Your task to perform on an android device: toggle airplane mode Image 0: 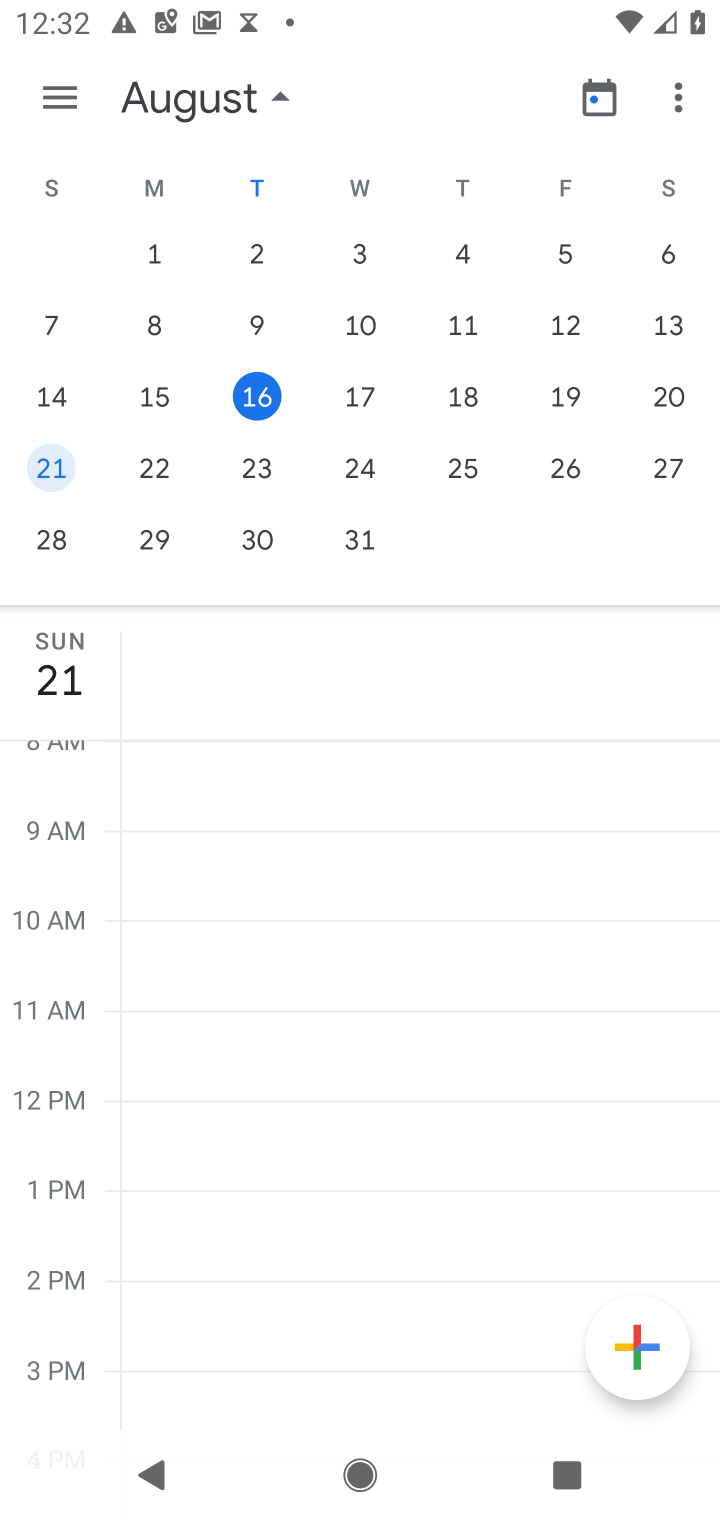
Step 0: press home button
Your task to perform on an android device: toggle airplane mode Image 1: 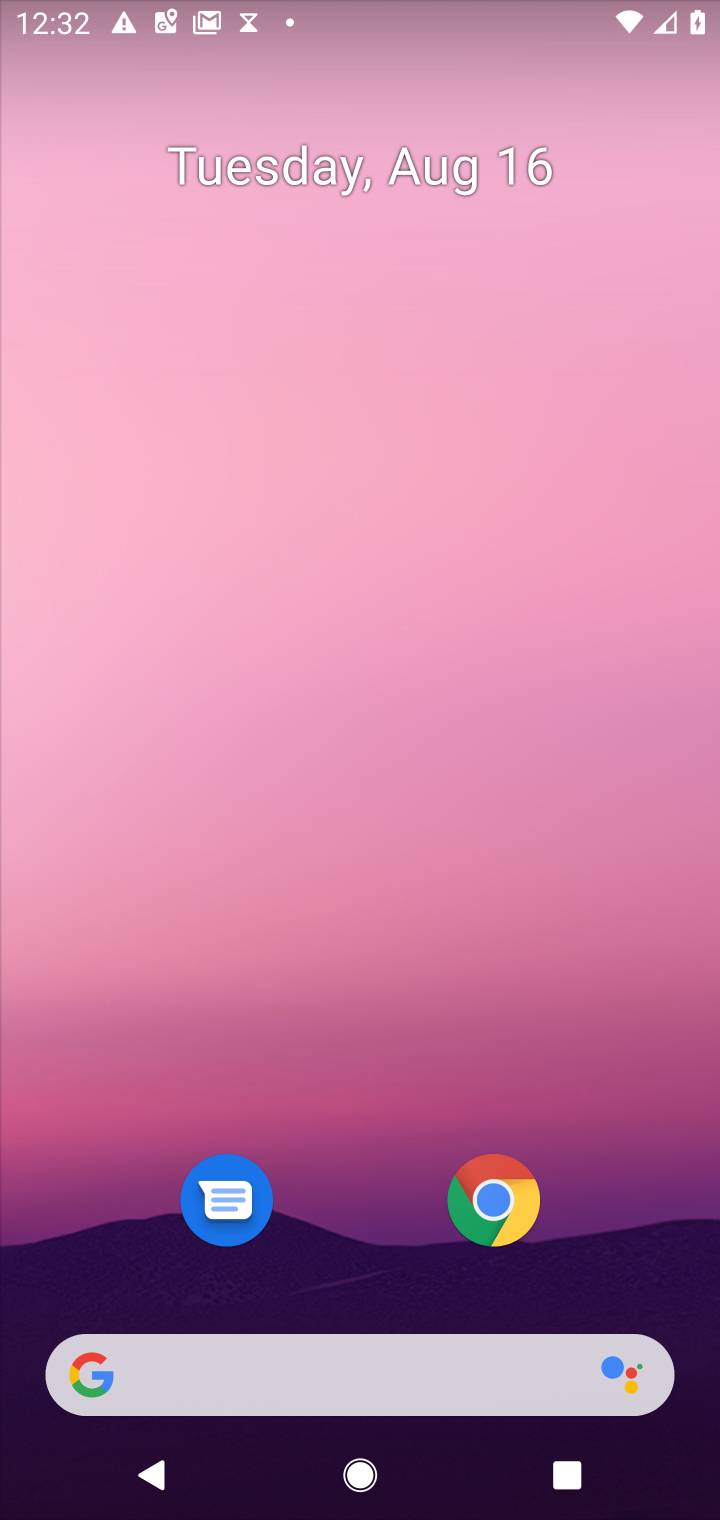
Step 1: drag from (368, 1216) to (345, 159)
Your task to perform on an android device: toggle airplane mode Image 2: 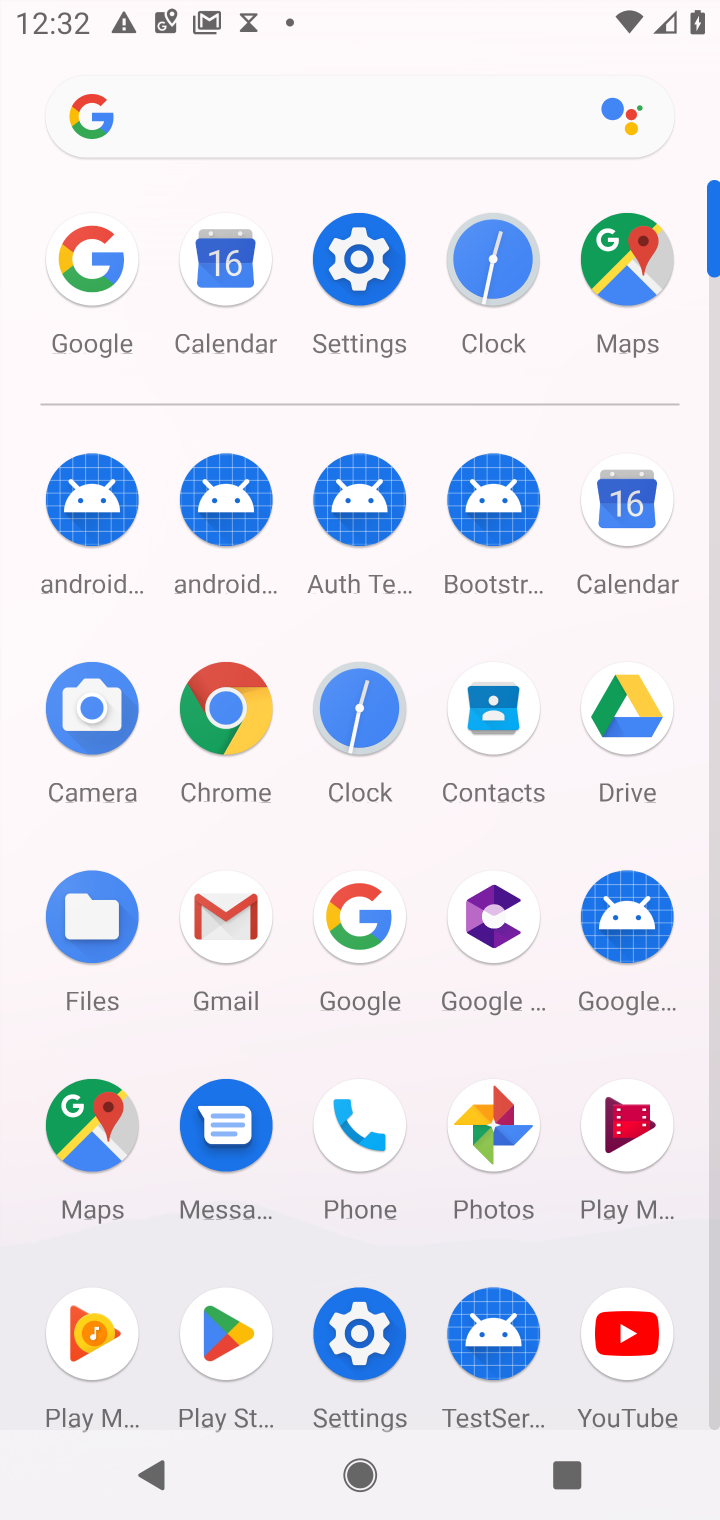
Step 2: click (327, 283)
Your task to perform on an android device: toggle airplane mode Image 3: 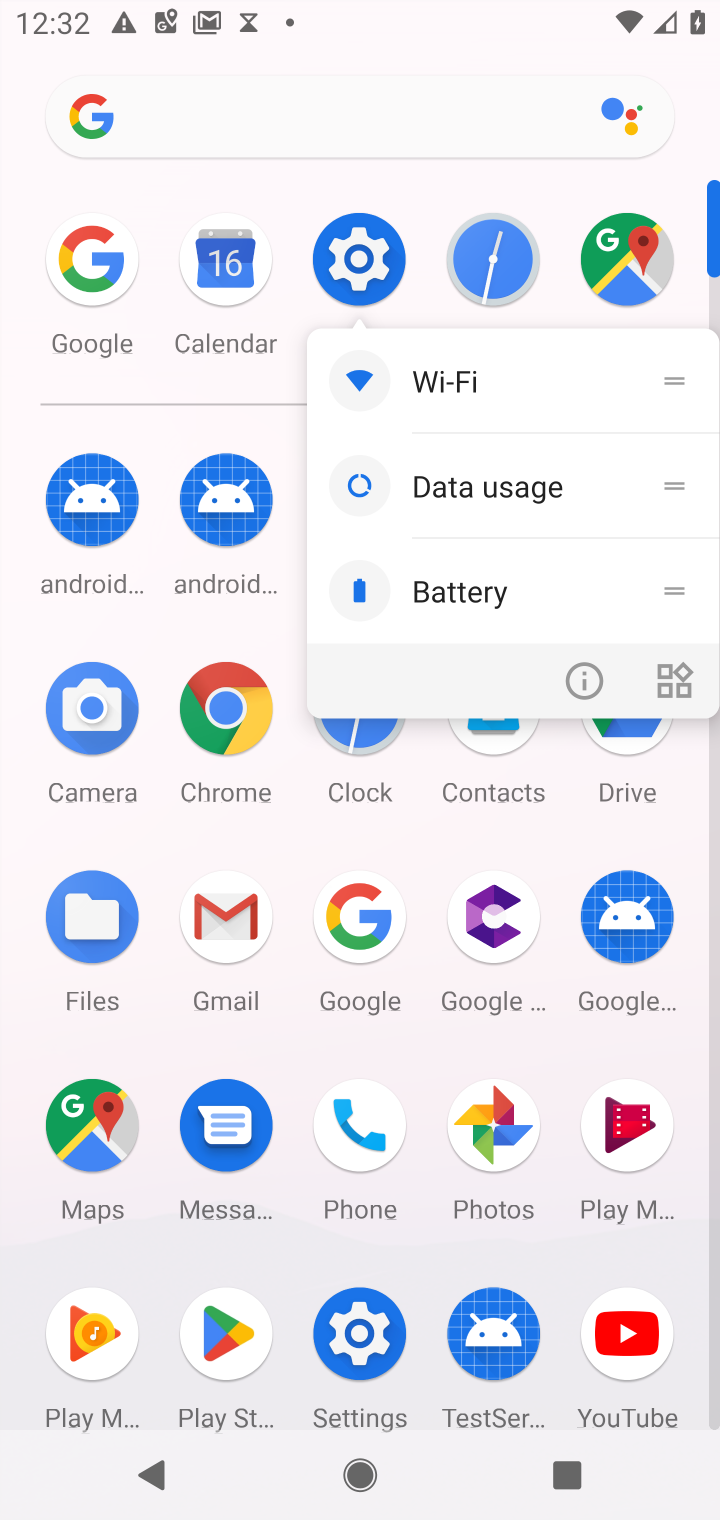
Step 3: click (329, 272)
Your task to perform on an android device: toggle airplane mode Image 4: 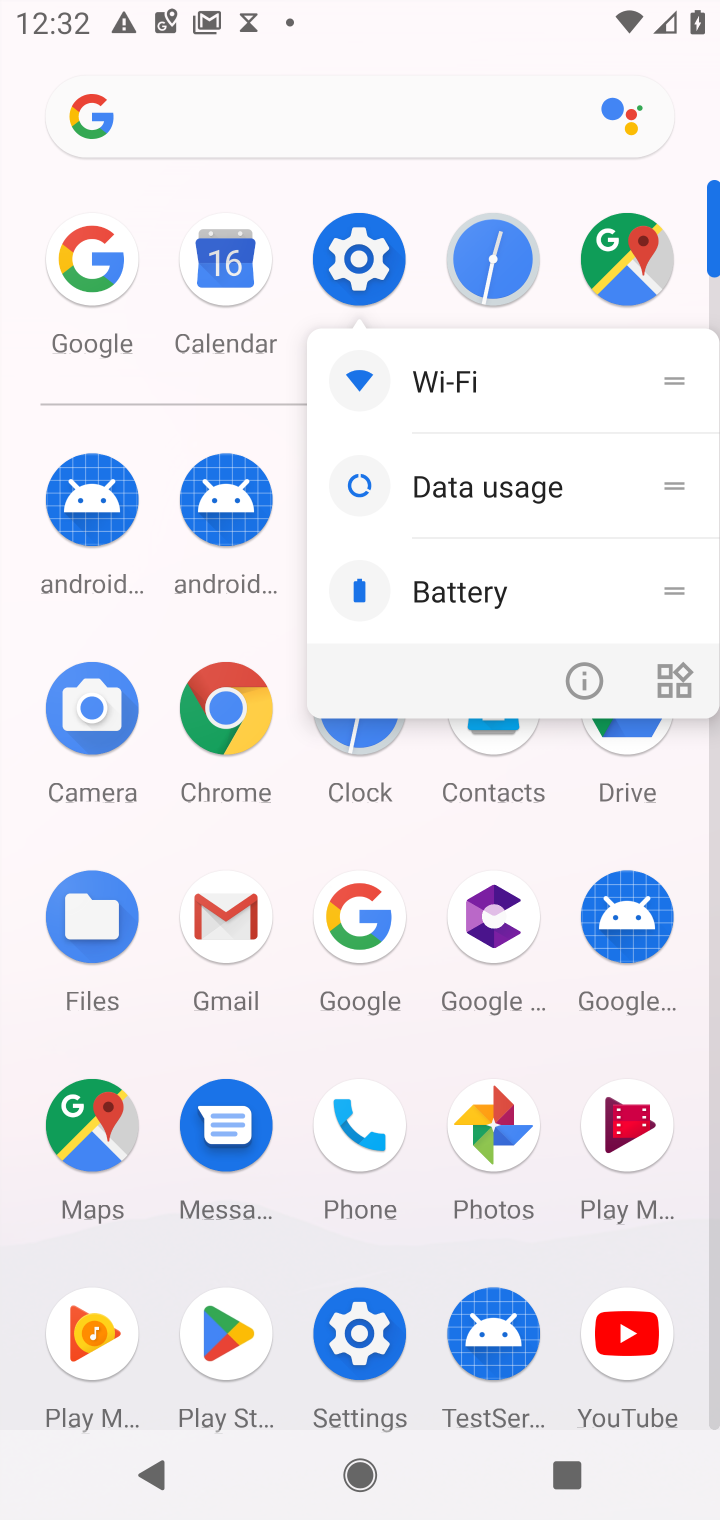
Step 4: click (341, 283)
Your task to perform on an android device: toggle airplane mode Image 5: 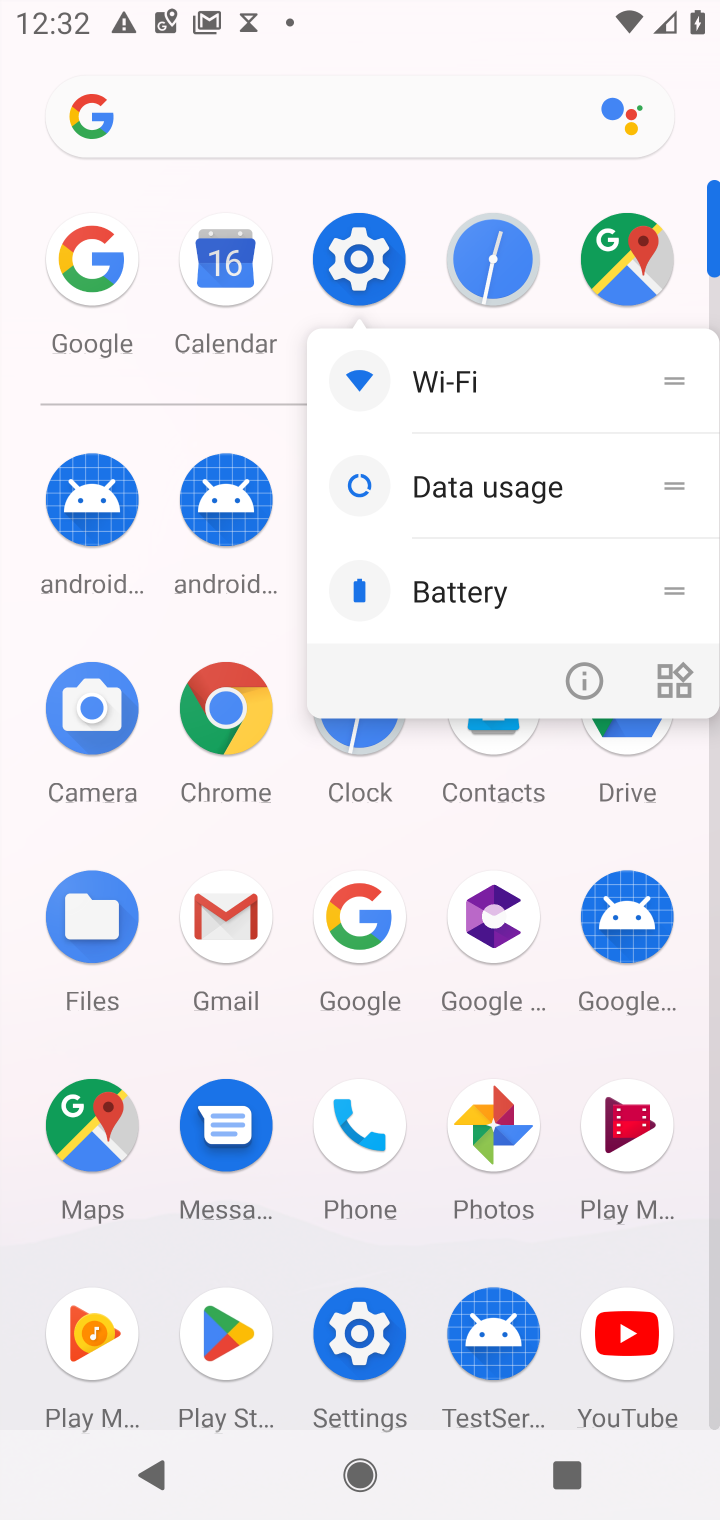
Step 5: click (344, 259)
Your task to perform on an android device: toggle airplane mode Image 6: 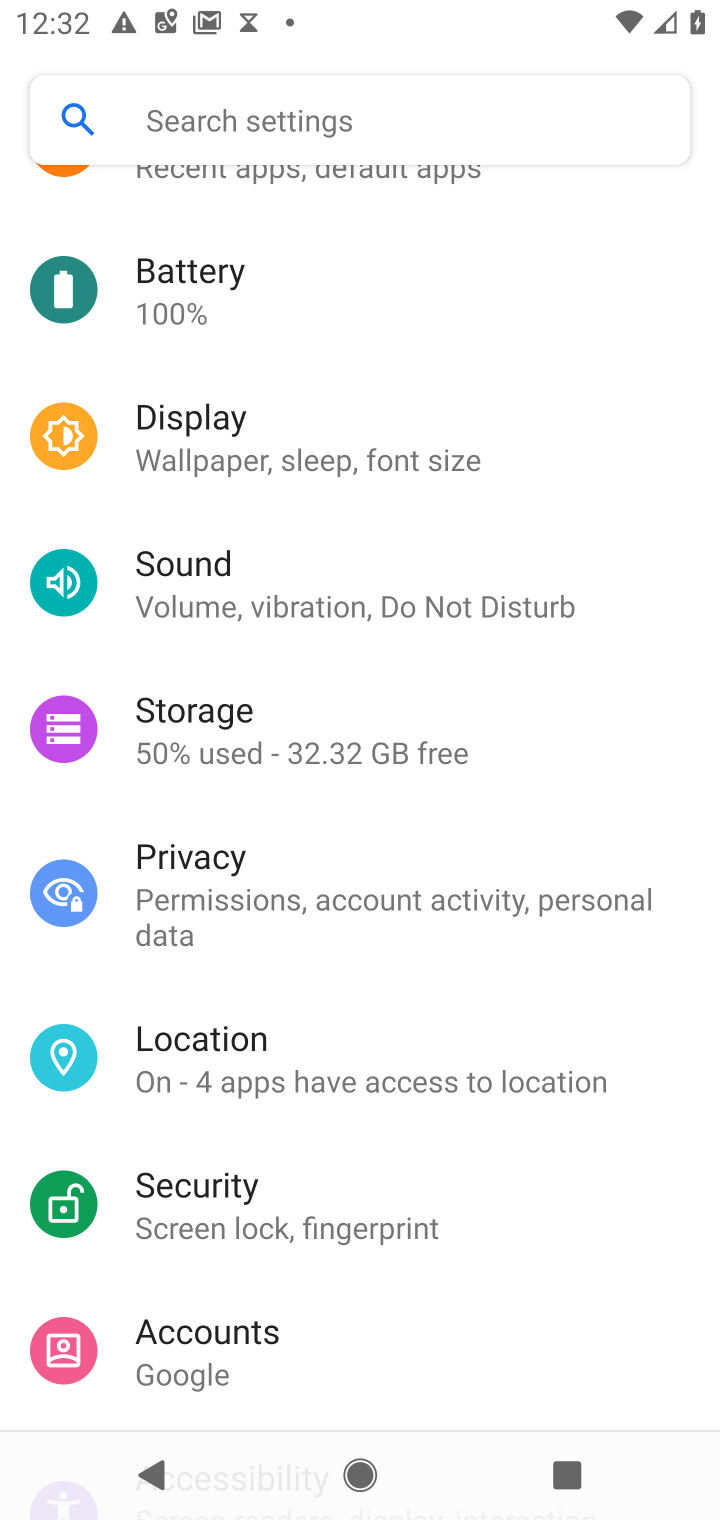
Step 6: drag from (326, 602) to (412, 1190)
Your task to perform on an android device: toggle airplane mode Image 7: 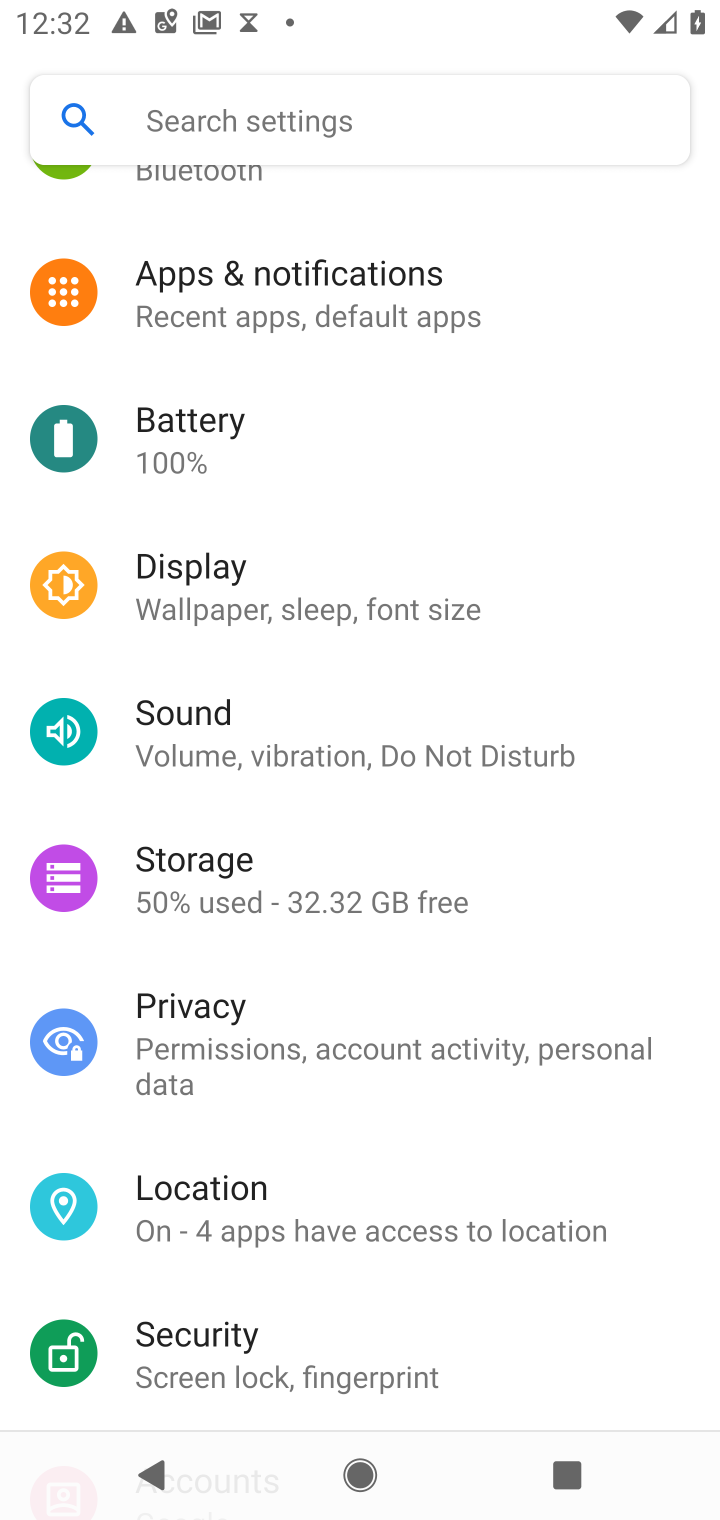
Step 7: drag from (264, 379) to (359, 1154)
Your task to perform on an android device: toggle airplane mode Image 8: 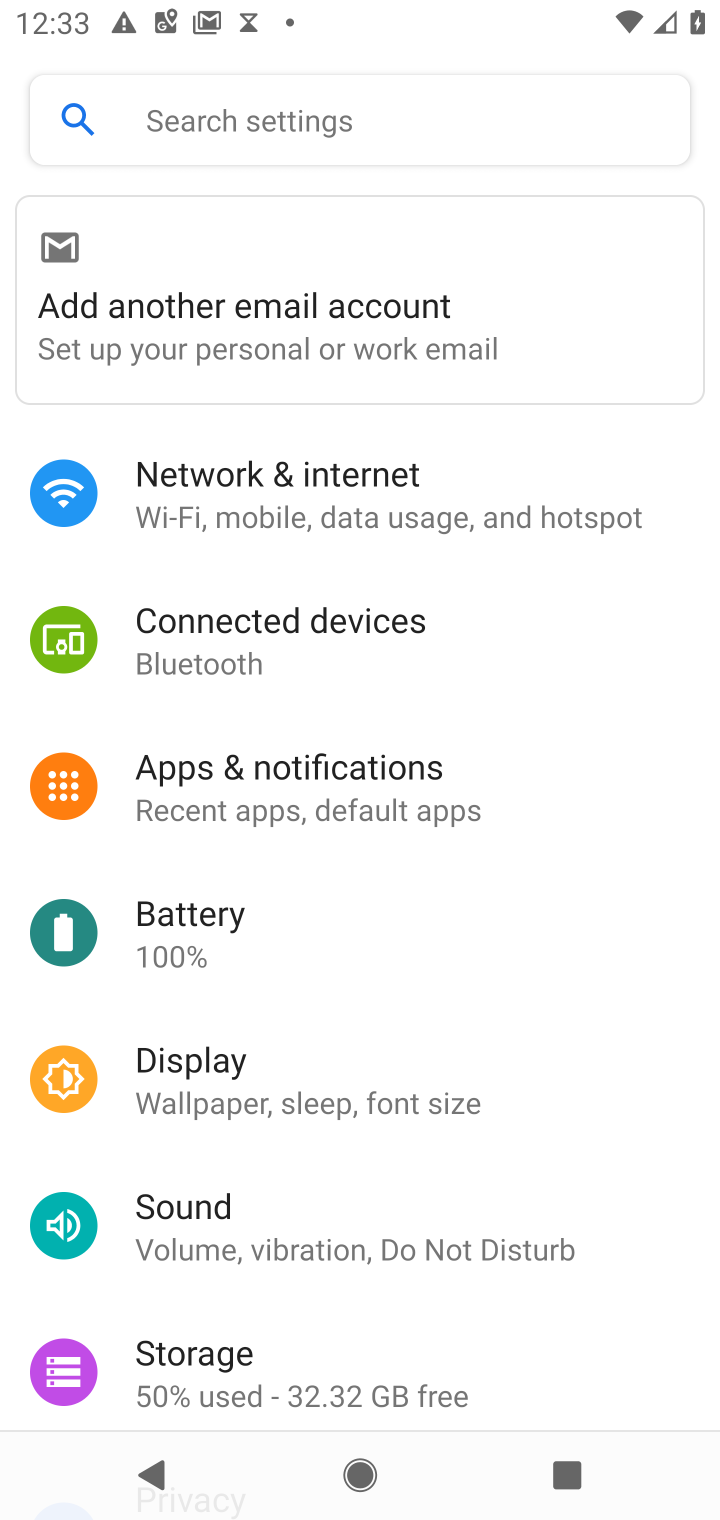
Step 8: click (286, 541)
Your task to perform on an android device: toggle airplane mode Image 9: 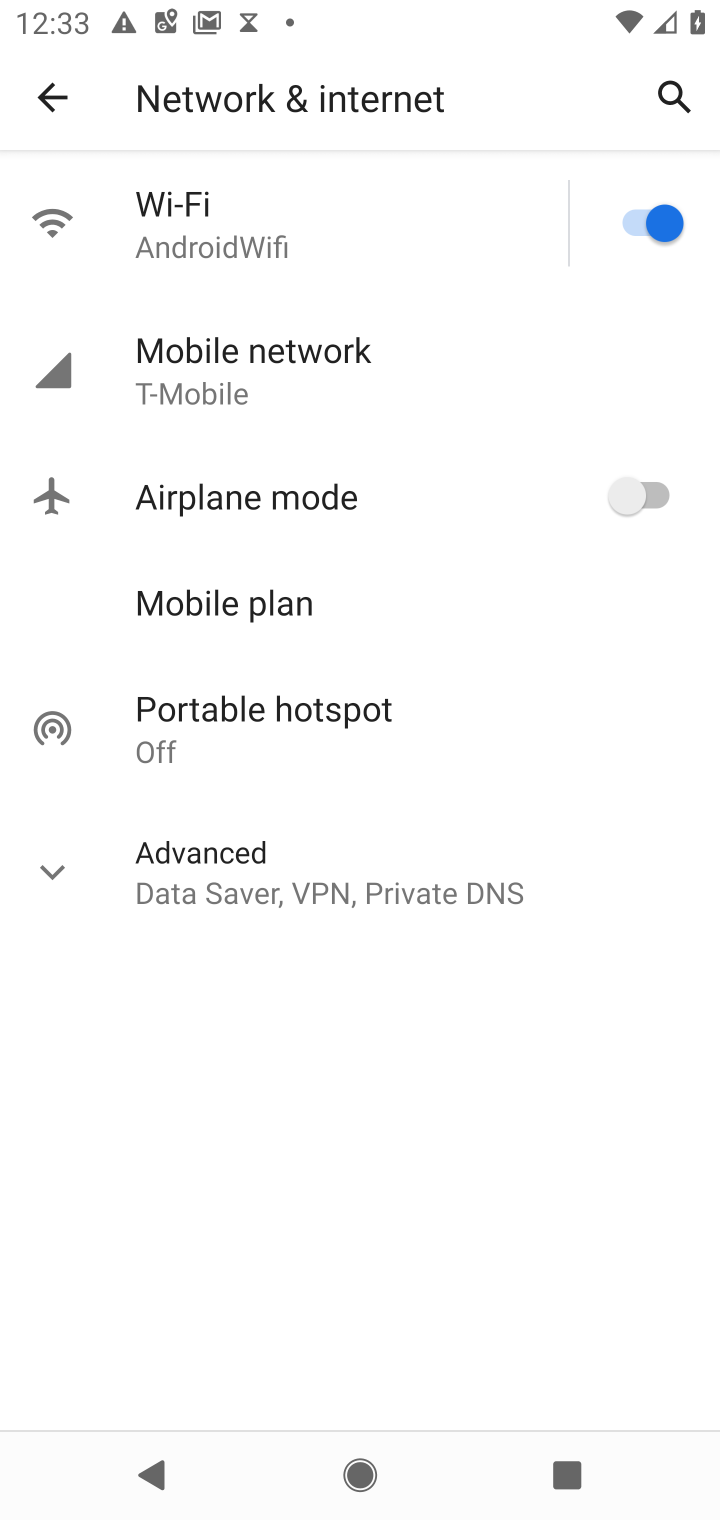
Step 9: click (642, 511)
Your task to perform on an android device: toggle airplane mode Image 10: 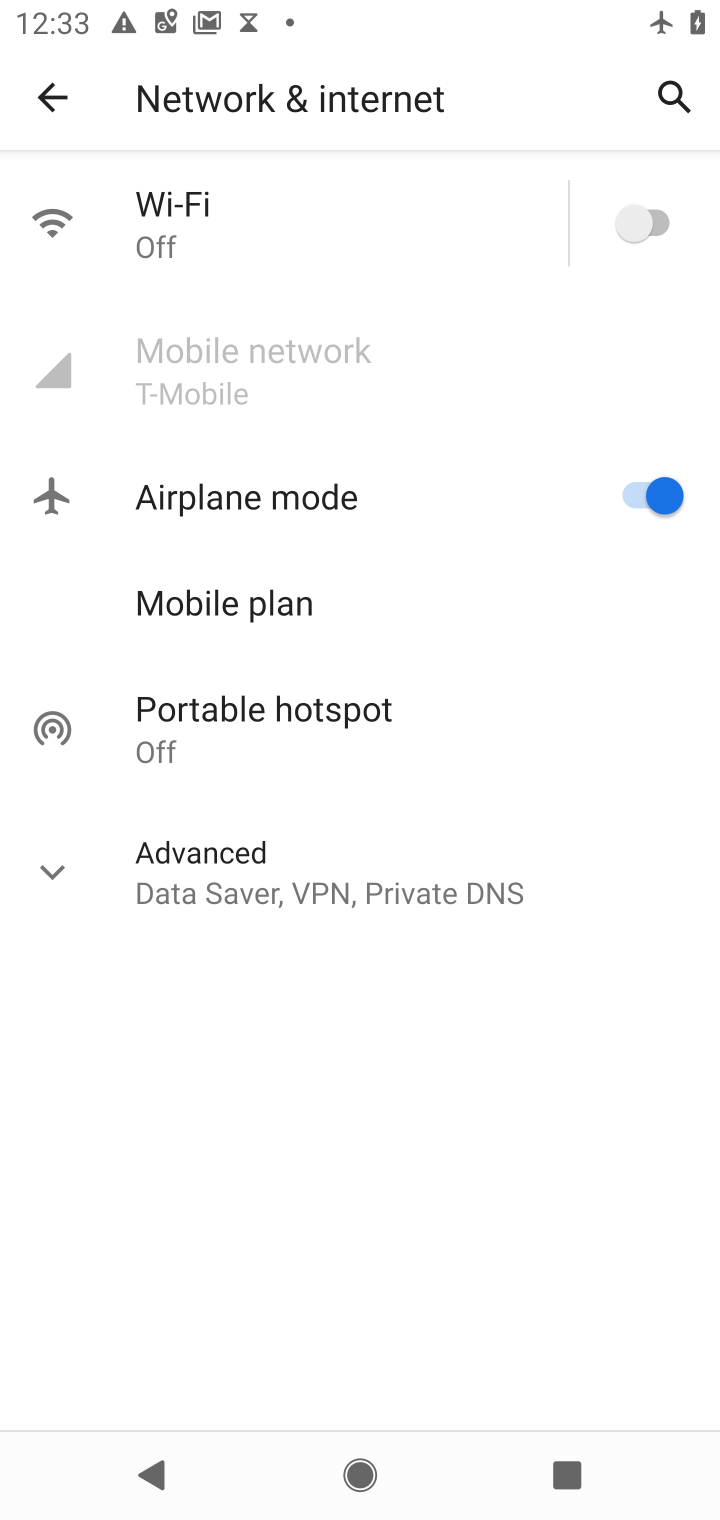
Step 10: task complete